Your task to perform on an android device: turn on the 24-hour format for clock Image 0: 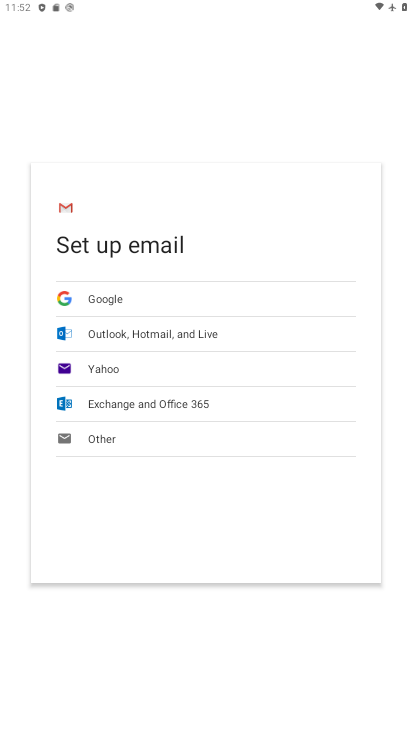
Step 0: press back button
Your task to perform on an android device: turn on the 24-hour format for clock Image 1: 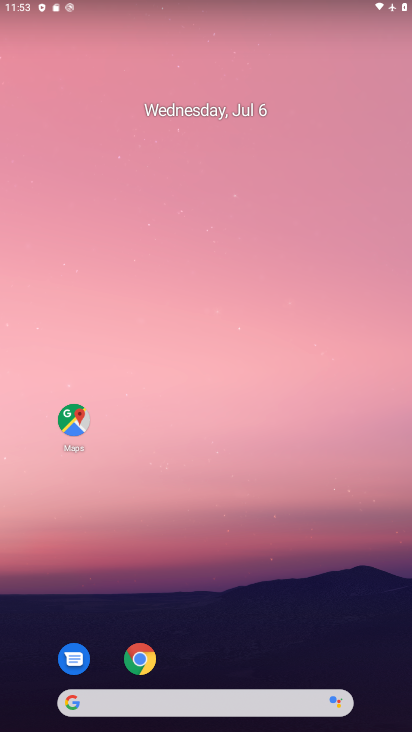
Step 1: drag from (247, 708) to (130, 166)
Your task to perform on an android device: turn on the 24-hour format for clock Image 2: 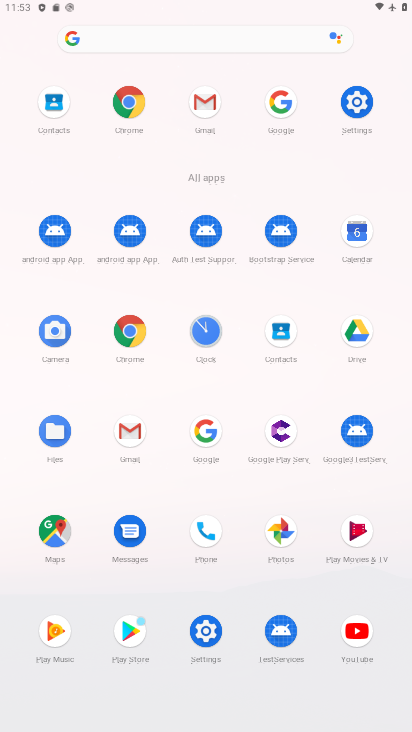
Step 2: click (199, 323)
Your task to perform on an android device: turn on the 24-hour format for clock Image 3: 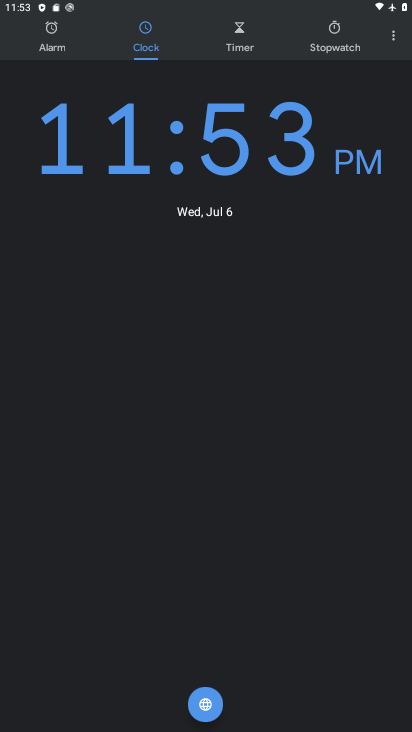
Step 3: click (393, 37)
Your task to perform on an android device: turn on the 24-hour format for clock Image 4: 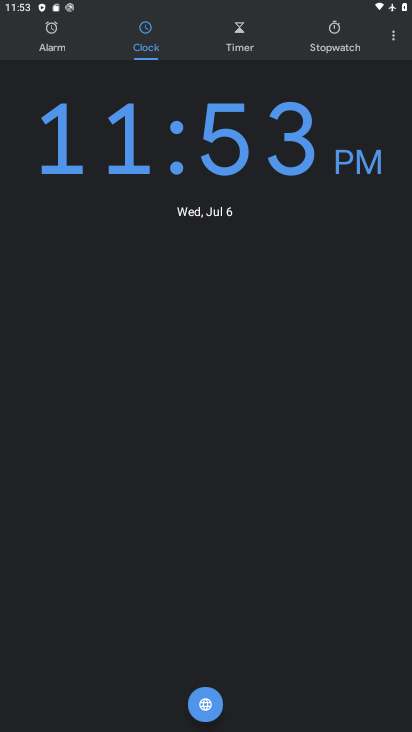
Step 4: click (393, 37)
Your task to perform on an android device: turn on the 24-hour format for clock Image 5: 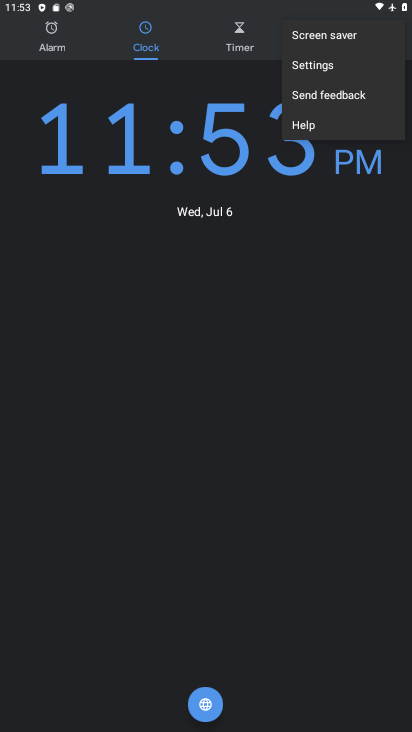
Step 5: click (320, 63)
Your task to perform on an android device: turn on the 24-hour format for clock Image 6: 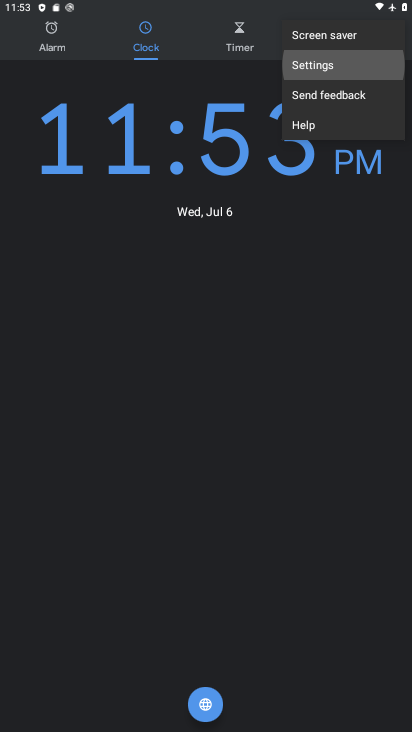
Step 6: click (321, 65)
Your task to perform on an android device: turn on the 24-hour format for clock Image 7: 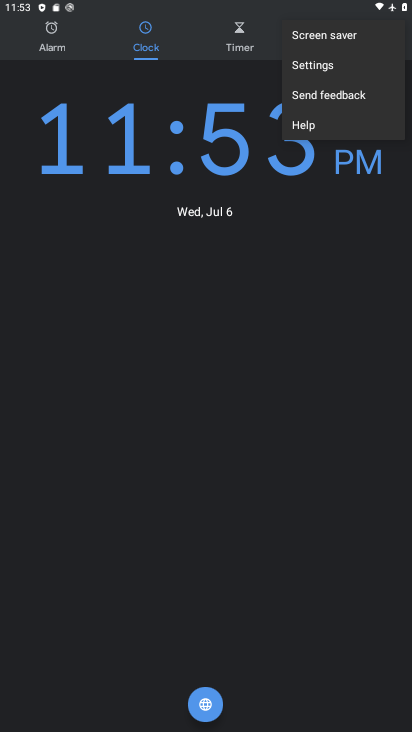
Step 7: click (322, 65)
Your task to perform on an android device: turn on the 24-hour format for clock Image 8: 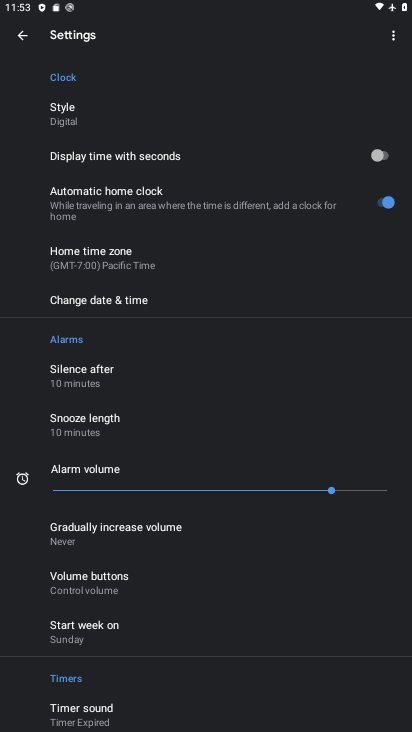
Step 8: drag from (116, 573) to (100, 155)
Your task to perform on an android device: turn on the 24-hour format for clock Image 9: 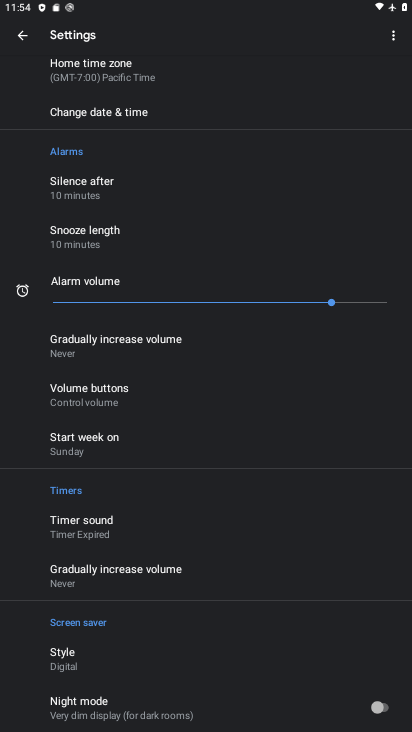
Step 9: click (90, 532)
Your task to perform on an android device: turn on the 24-hour format for clock Image 10: 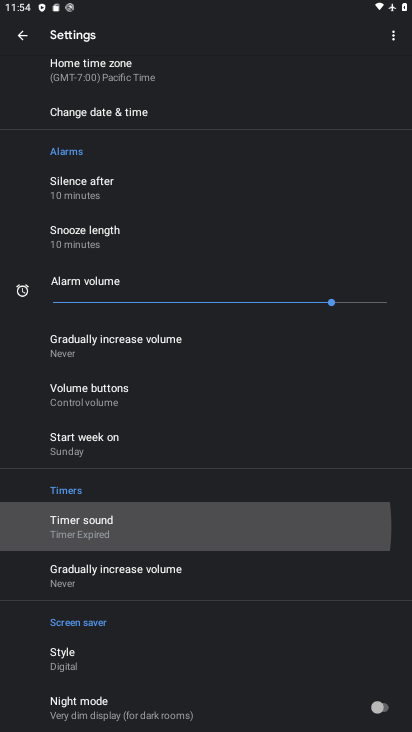
Step 10: click (89, 533)
Your task to perform on an android device: turn on the 24-hour format for clock Image 11: 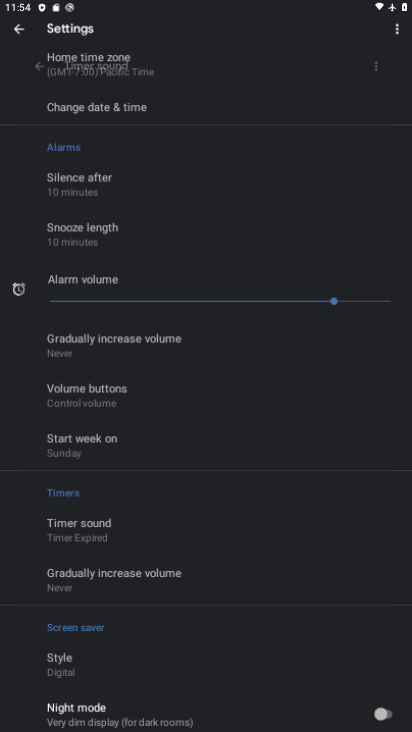
Step 11: click (101, 521)
Your task to perform on an android device: turn on the 24-hour format for clock Image 12: 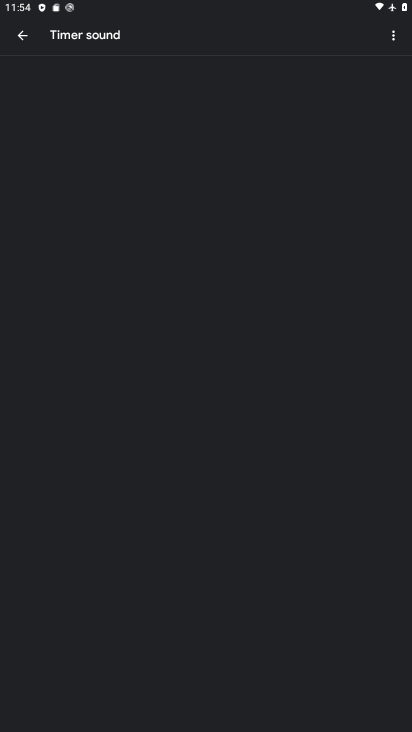
Step 12: click (101, 521)
Your task to perform on an android device: turn on the 24-hour format for clock Image 13: 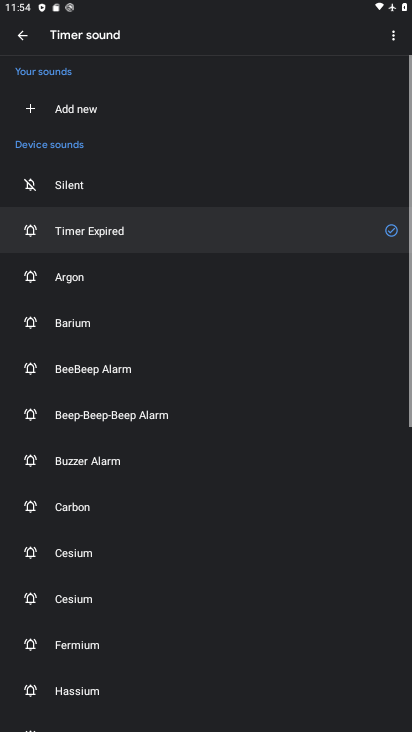
Step 13: click (16, 32)
Your task to perform on an android device: turn on the 24-hour format for clock Image 14: 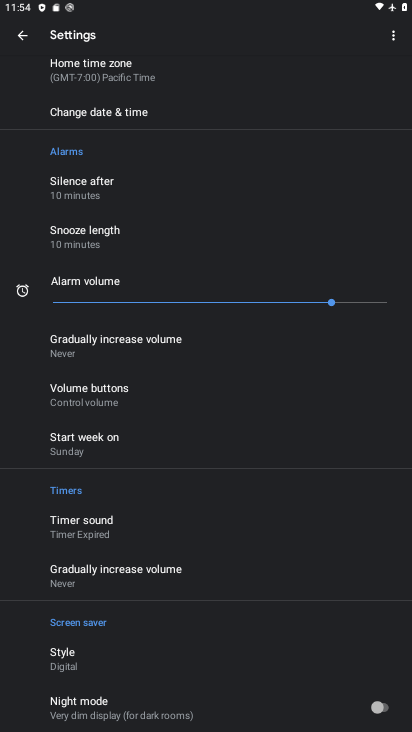
Step 14: click (100, 113)
Your task to perform on an android device: turn on the 24-hour format for clock Image 15: 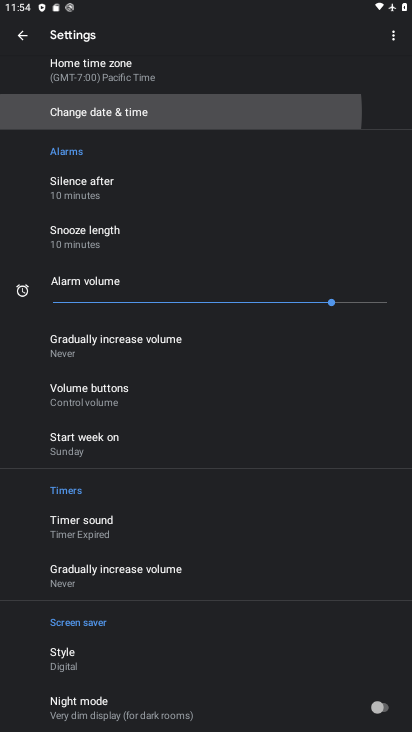
Step 15: click (100, 113)
Your task to perform on an android device: turn on the 24-hour format for clock Image 16: 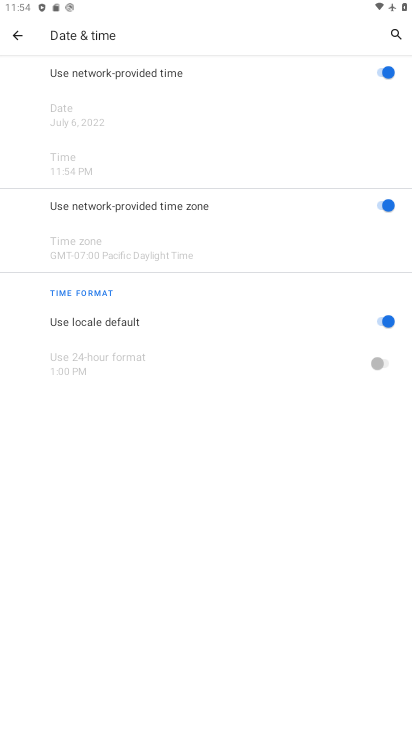
Step 16: click (384, 319)
Your task to perform on an android device: turn on the 24-hour format for clock Image 17: 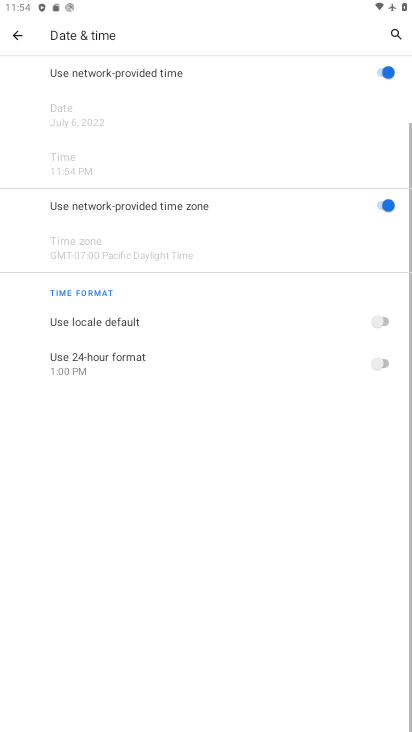
Step 17: click (377, 370)
Your task to perform on an android device: turn on the 24-hour format for clock Image 18: 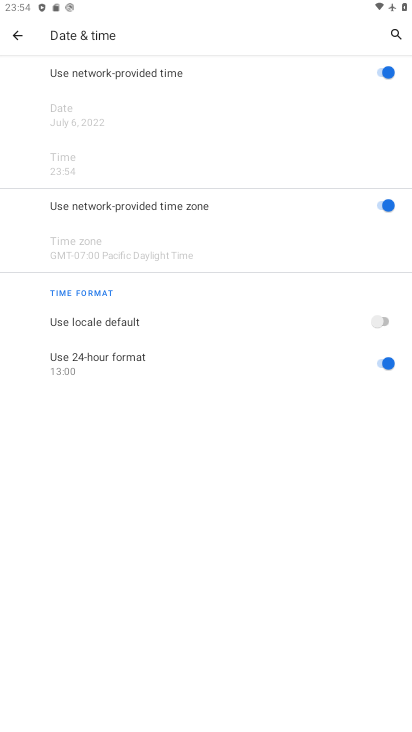
Step 18: task complete